Your task to perform on an android device: Go to privacy settings Image 0: 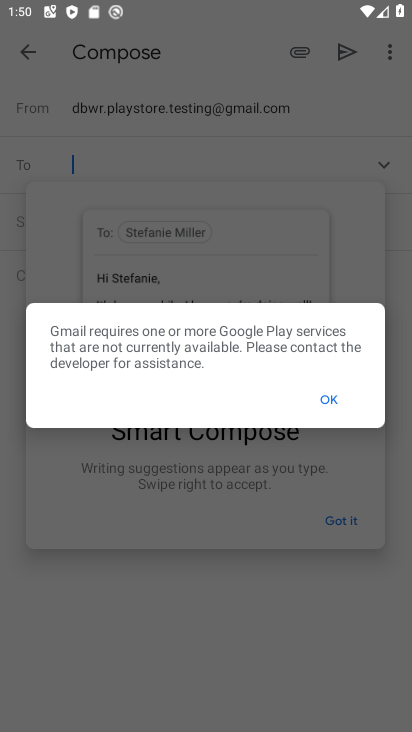
Step 0: press home button
Your task to perform on an android device: Go to privacy settings Image 1: 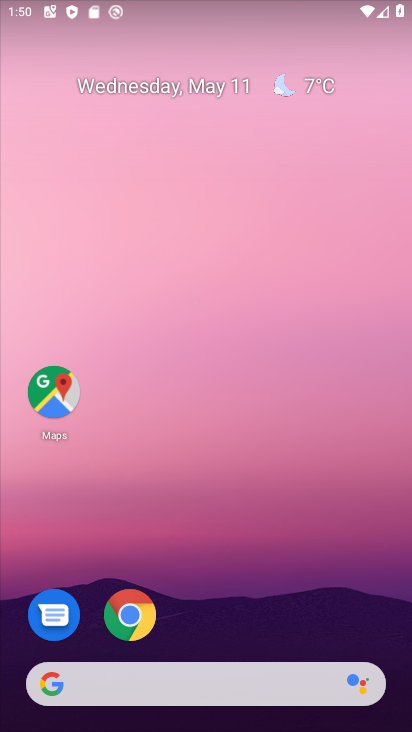
Step 1: drag from (282, 573) to (329, 195)
Your task to perform on an android device: Go to privacy settings Image 2: 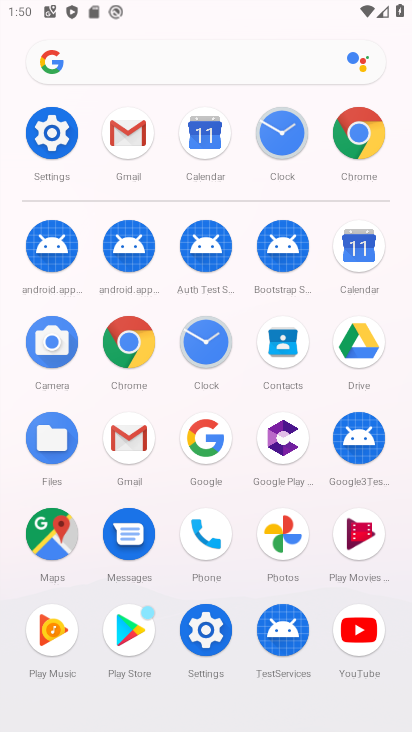
Step 2: click (49, 147)
Your task to perform on an android device: Go to privacy settings Image 3: 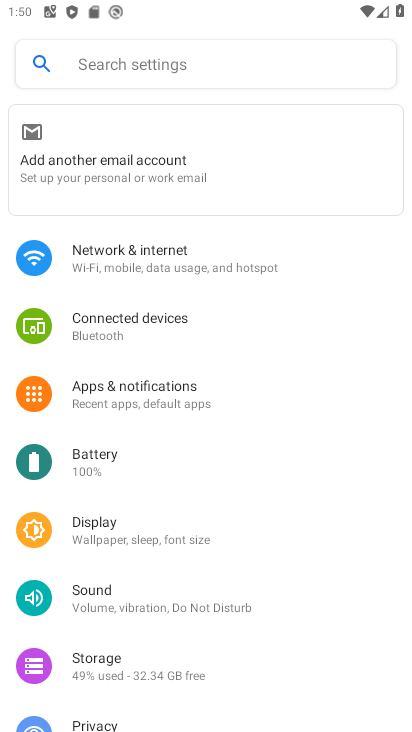
Step 3: drag from (236, 617) to (304, 385)
Your task to perform on an android device: Go to privacy settings Image 4: 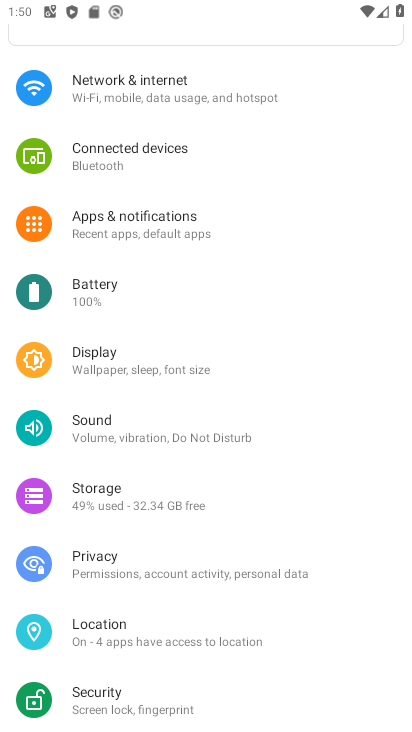
Step 4: click (126, 559)
Your task to perform on an android device: Go to privacy settings Image 5: 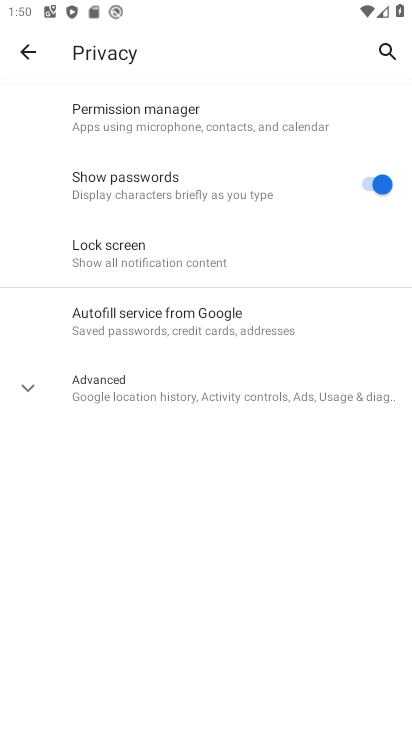
Step 5: task complete